Your task to perform on an android device: toggle pop-ups in chrome Image 0: 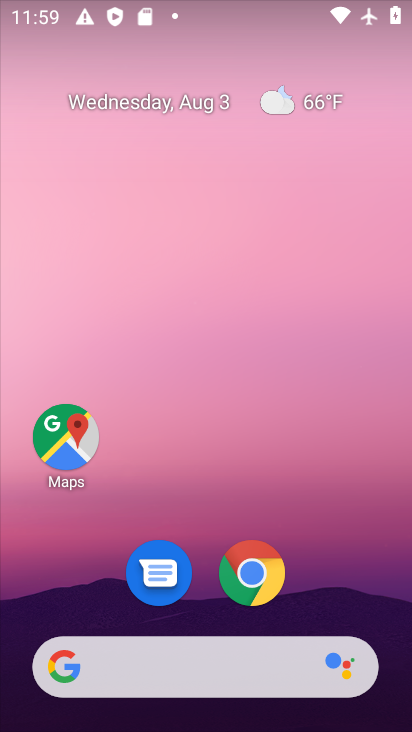
Step 0: drag from (345, 572) to (347, 150)
Your task to perform on an android device: toggle pop-ups in chrome Image 1: 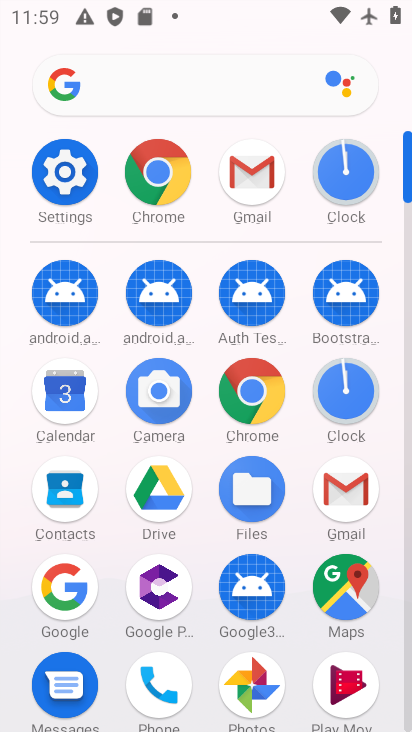
Step 1: click (253, 391)
Your task to perform on an android device: toggle pop-ups in chrome Image 2: 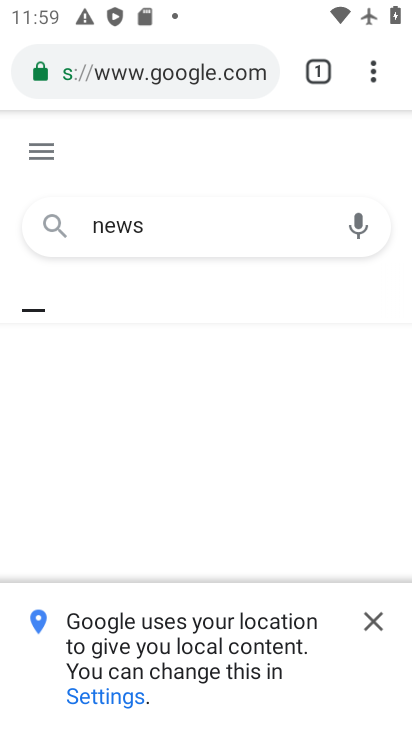
Step 2: drag from (374, 59) to (194, 576)
Your task to perform on an android device: toggle pop-ups in chrome Image 3: 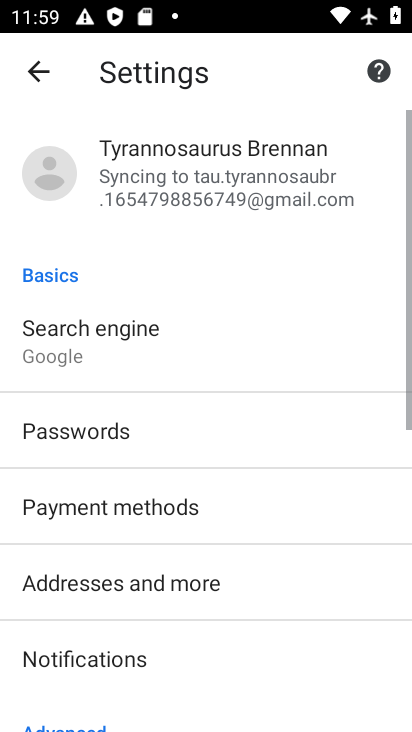
Step 3: drag from (194, 574) to (292, 160)
Your task to perform on an android device: toggle pop-ups in chrome Image 4: 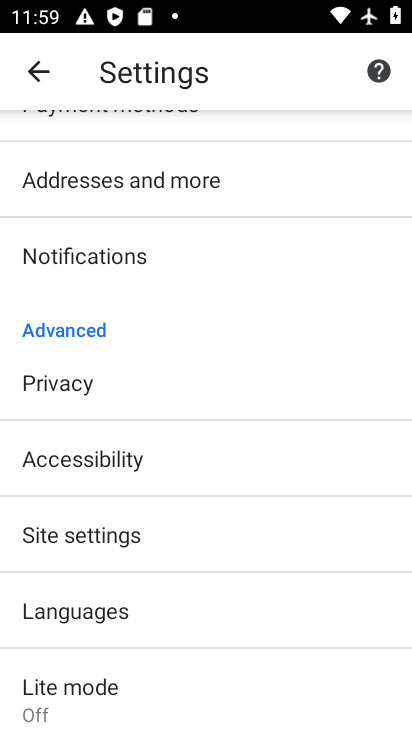
Step 4: click (122, 529)
Your task to perform on an android device: toggle pop-ups in chrome Image 5: 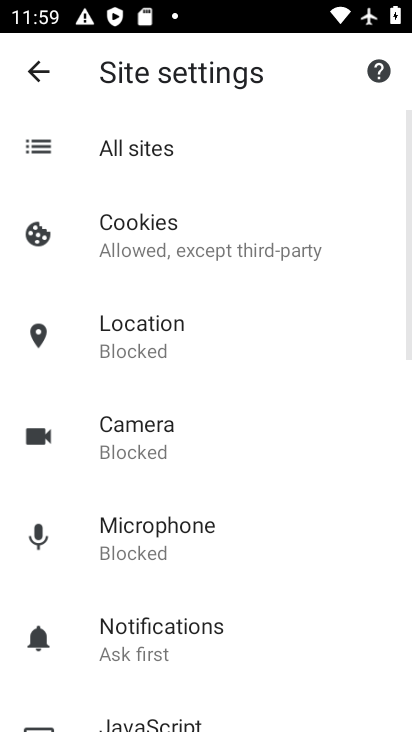
Step 5: drag from (287, 573) to (349, 197)
Your task to perform on an android device: toggle pop-ups in chrome Image 6: 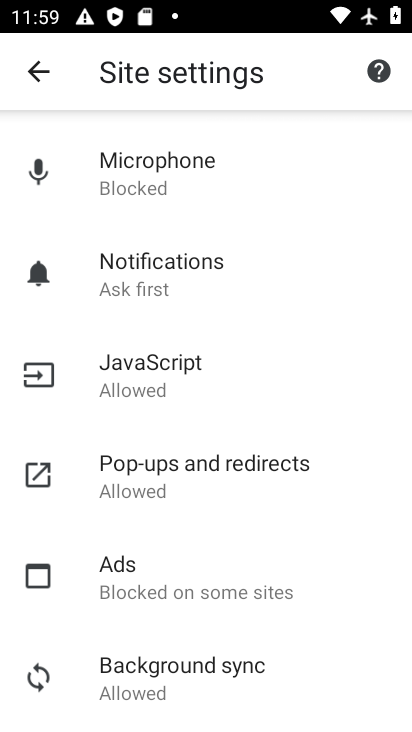
Step 6: click (159, 463)
Your task to perform on an android device: toggle pop-ups in chrome Image 7: 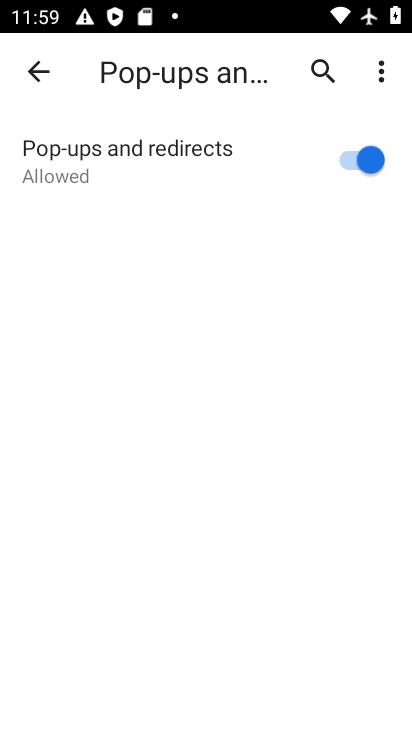
Step 7: task complete